Your task to perform on an android device: check battery use Image 0: 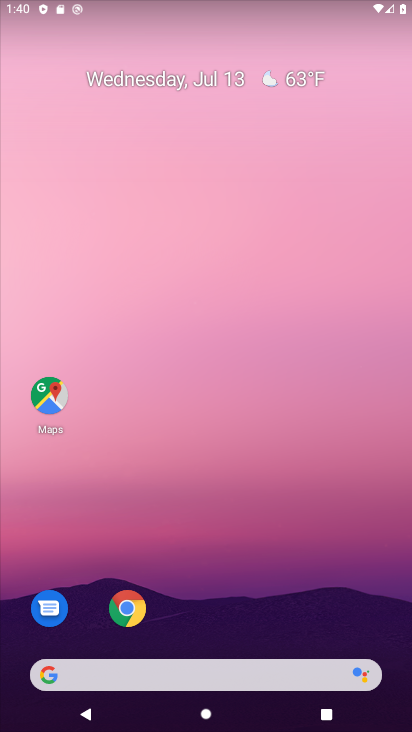
Step 0: drag from (308, 639) to (251, 38)
Your task to perform on an android device: check battery use Image 1: 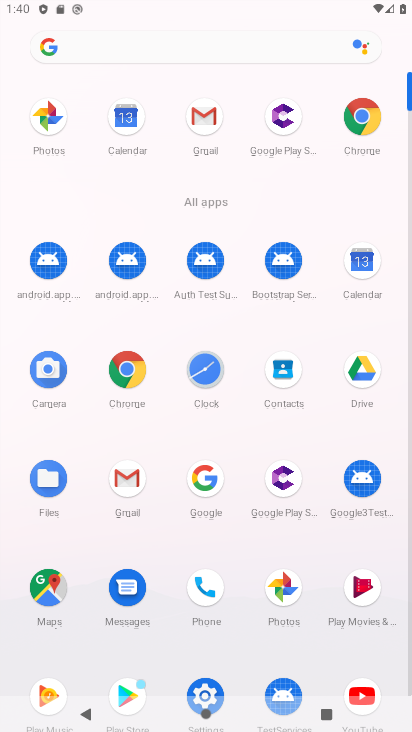
Step 1: click (207, 690)
Your task to perform on an android device: check battery use Image 2: 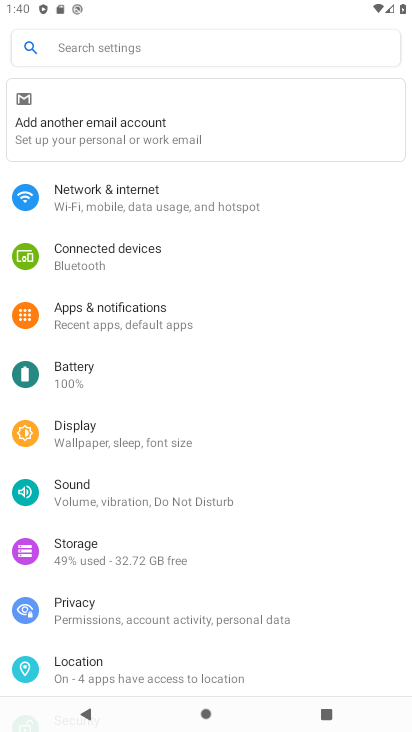
Step 2: click (109, 373)
Your task to perform on an android device: check battery use Image 3: 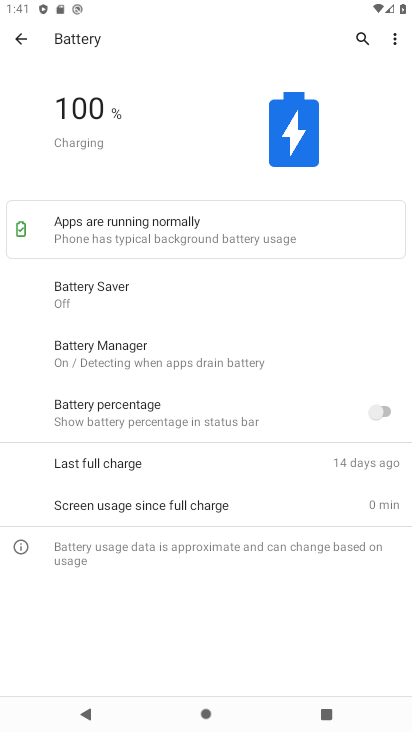
Step 3: click (388, 35)
Your task to perform on an android device: check battery use Image 4: 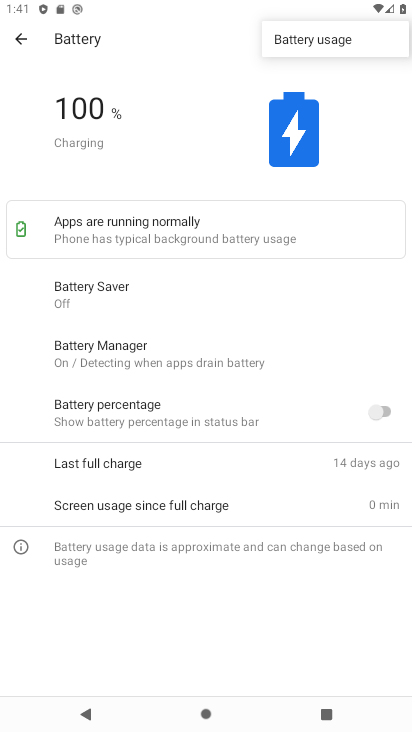
Step 4: click (328, 38)
Your task to perform on an android device: check battery use Image 5: 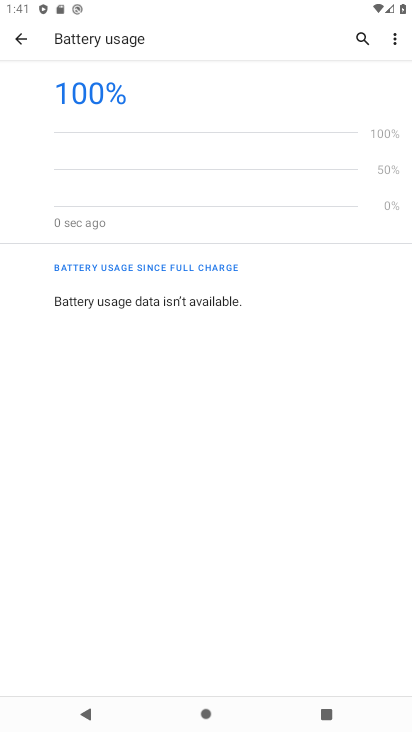
Step 5: task complete